Your task to perform on an android device: turn off location Image 0: 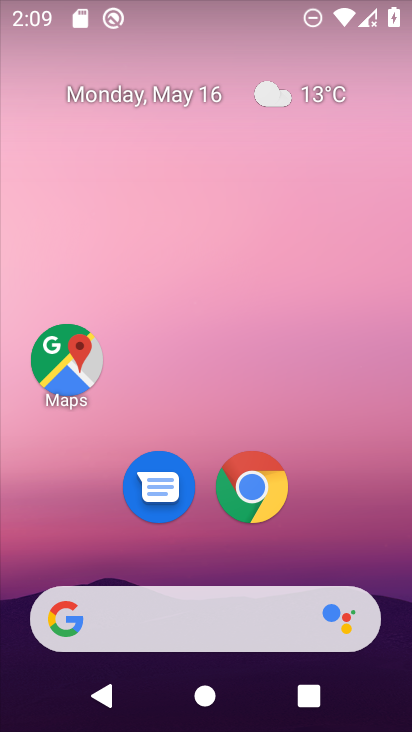
Step 0: drag from (377, 566) to (350, 213)
Your task to perform on an android device: turn off location Image 1: 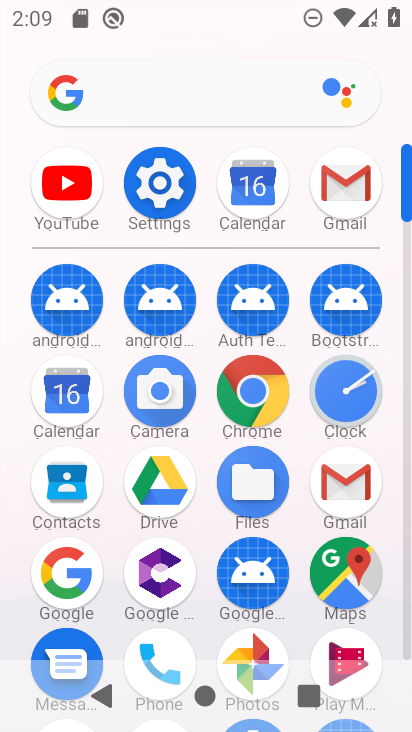
Step 1: click (150, 193)
Your task to perform on an android device: turn off location Image 2: 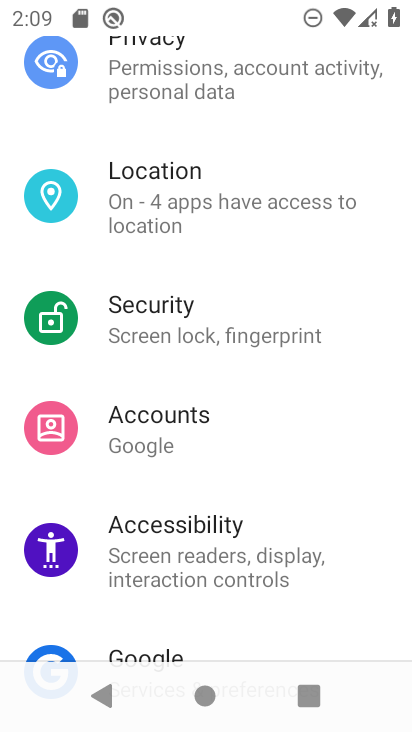
Step 2: click (156, 202)
Your task to perform on an android device: turn off location Image 3: 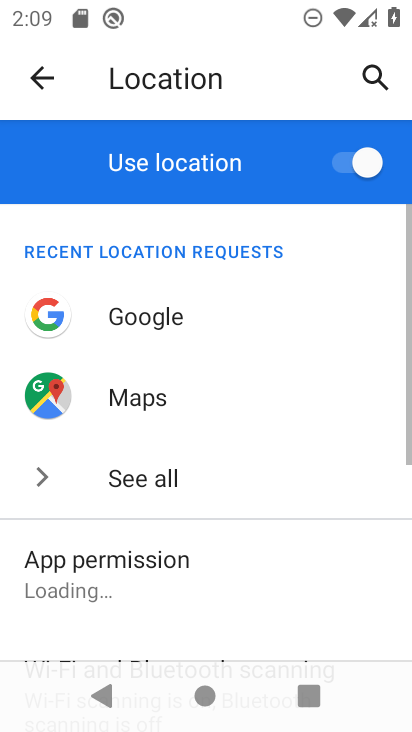
Step 3: click (333, 164)
Your task to perform on an android device: turn off location Image 4: 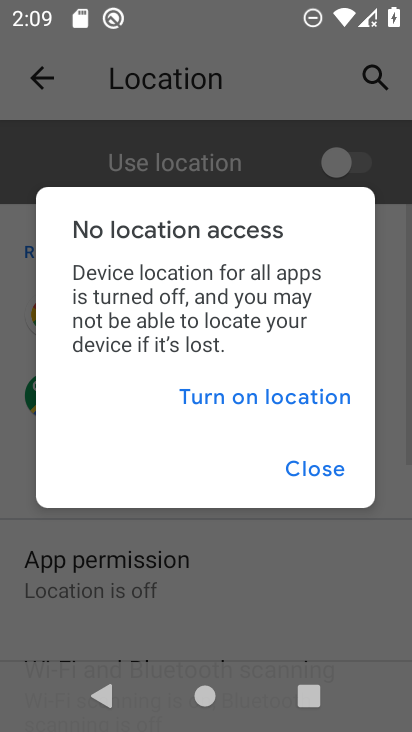
Step 4: task complete